Your task to perform on an android device: turn off priority inbox in the gmail app Image 0: 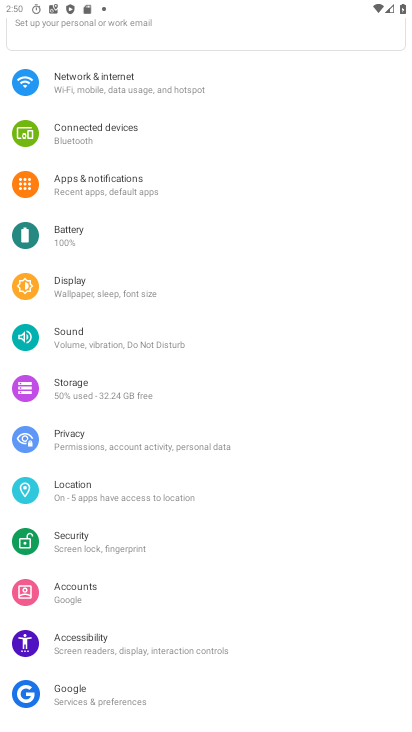
Step 0: press home button
Your task to perform on an android device: turn off priority inbox in the gmail app Image 1: 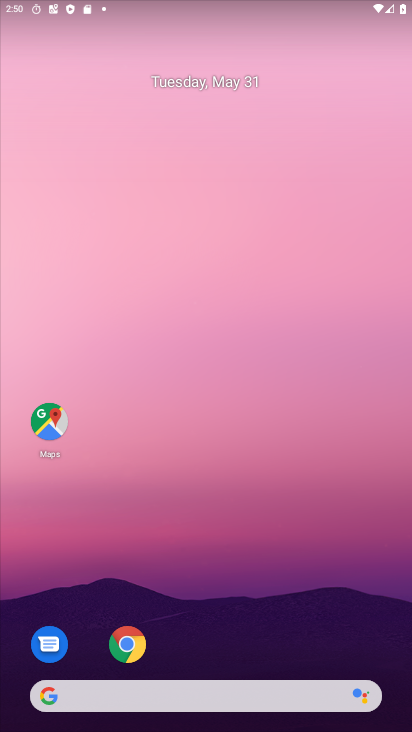
Step 1: drag from (394, 680) to (328, 64)
Your task to perform on an android device: turn off priority inbox in the gmail app Image 2: 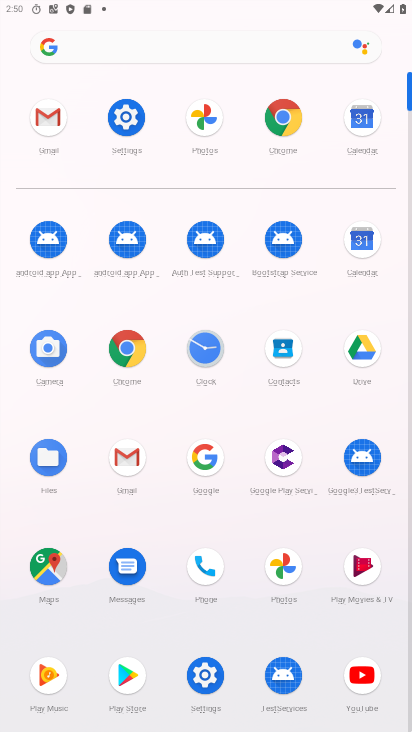
Step 2: click (116, 462)
Your task to perform on an android device: turn off priority inbox in the gmail app Image 3: 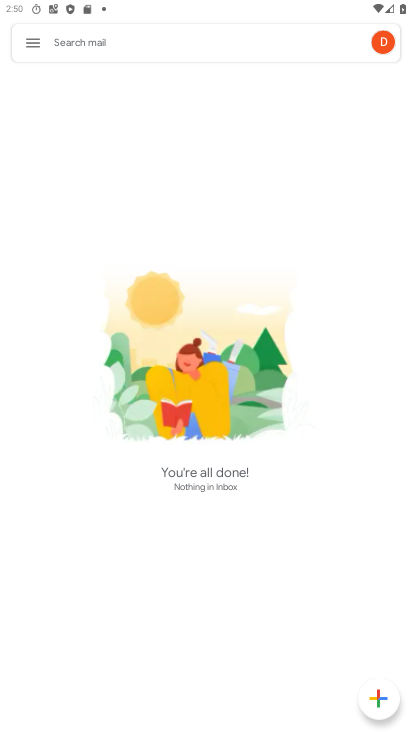
Step 3: click (32, 45)
Your task to perform on an android device: turn off priority inbox in the gmail app Image 4: 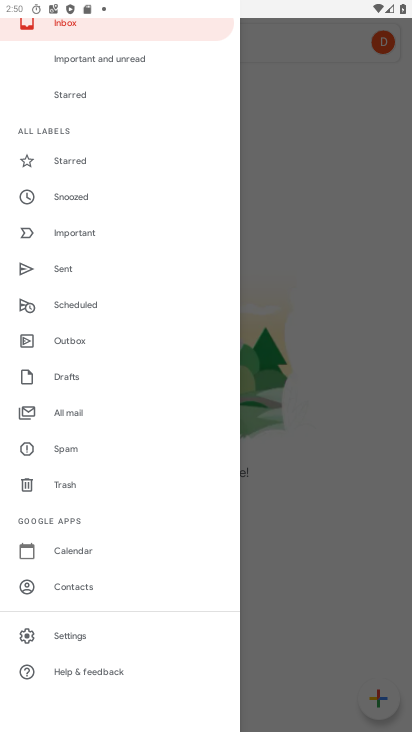
Step 4: click (71, 633)
Your task to perform on an android device: turn off priority inbox in the gmail app Image 5: 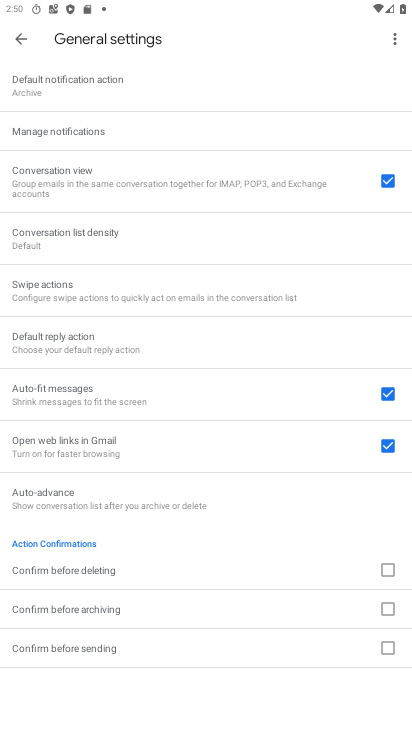
Step 5: click (14, 36)
Your task to perform on an android device: turn off priority inbox in the gmail app Image 6: 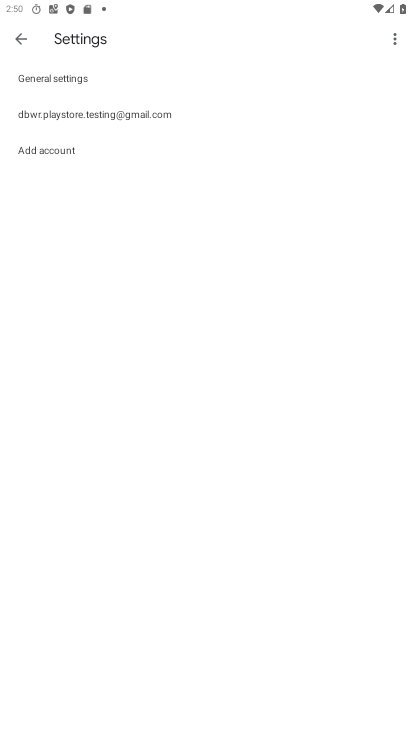
Step 6: click (54, 107)
Your task to perform on an android device: turn off priority inbox in the gmail app Image 7: 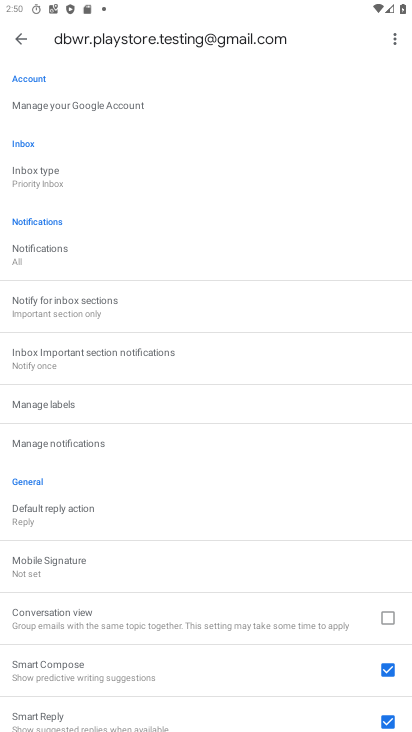
Step 7: click (35, 175)
Your task to perform on an android device: turn off priority inbox in the gmail app Image 8: 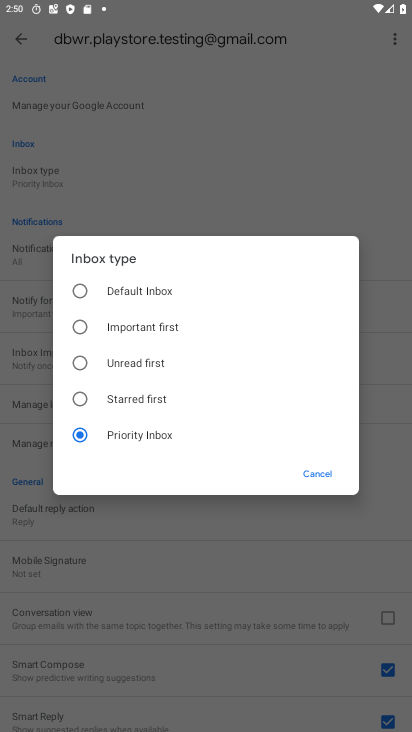
Step 8: click (77, 290)
Your task to perform on an android device: turn off priority inbox in the gmail app Image 9: 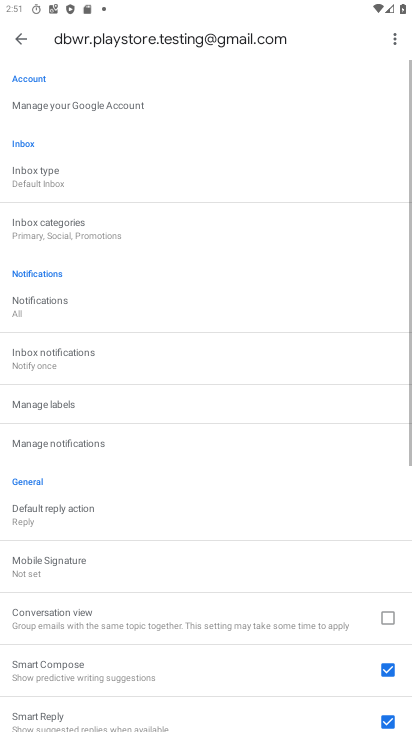
Step 9: task complete